Your task to perform on an android device: Go to internet settings Image 0: 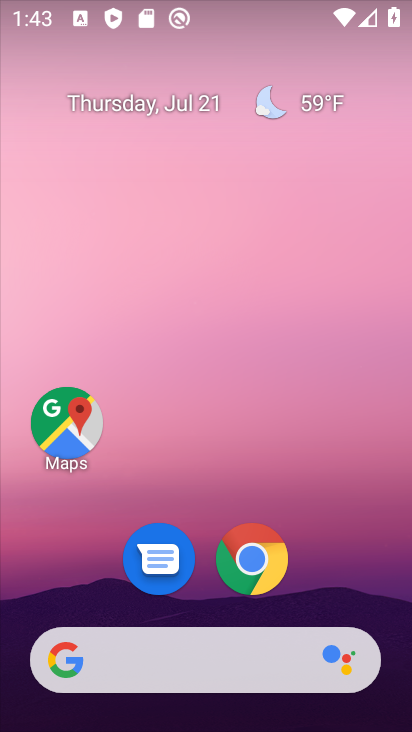
Step 0: click (137, 292)
Your task to perform on an android device: Go to internet settings Image 1: 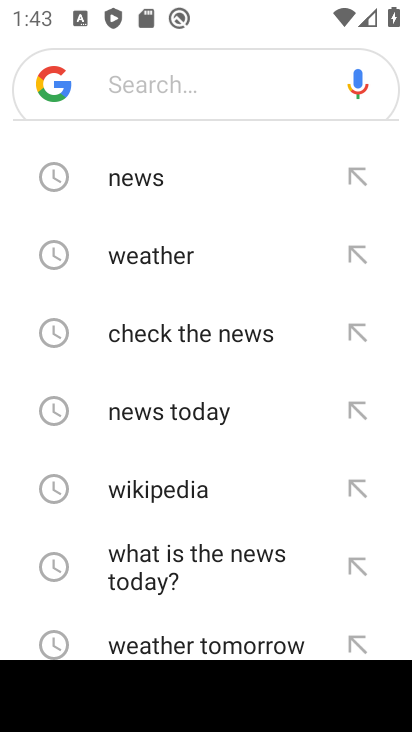
Step 1: press home button
Your task to perform on an android device: Go to internet settings Image 2: 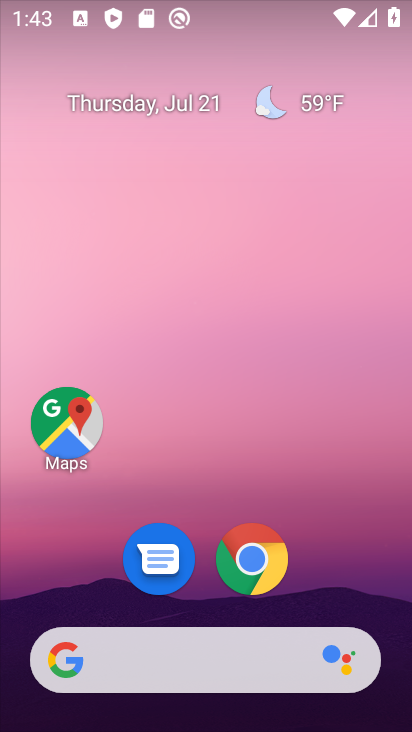
Step 2: drag from (166, 654) to (78, 188)
Your task to perform on an android device: Go to internet settings Image 3: 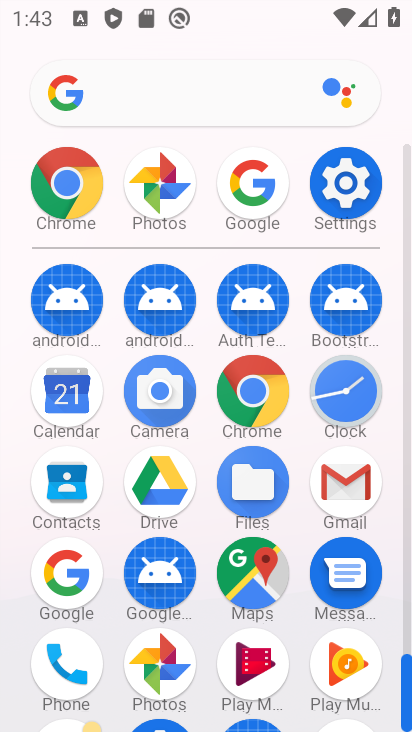
Step 3: click (331, 172)
Your task to perform on an android device: Go to internet settings Image 4: 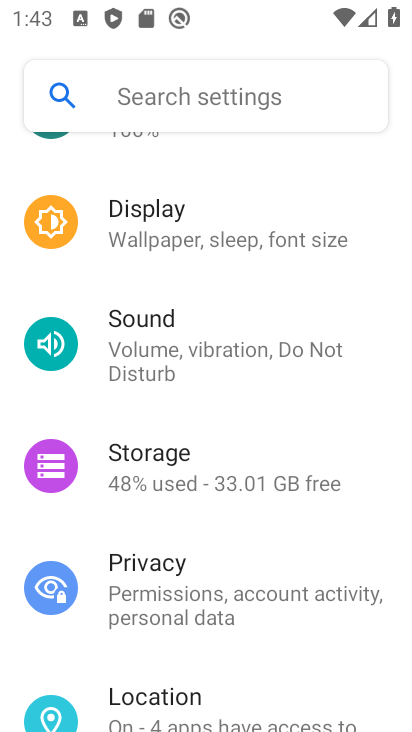
Step 4: drag from (191, 292) to (151, 676)
Your task to perform on an android device: Go to internet settings Image 5: 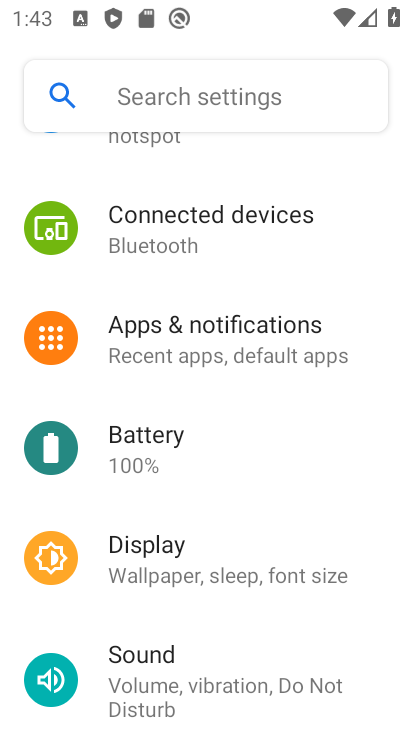
Step 5: drag from (160, 575) to (151, 728)
Your task to perform on an android device: Go to internet settings Image 6: 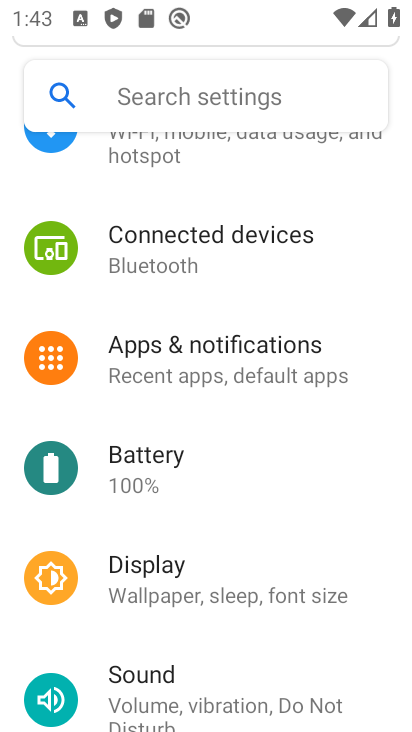
Step 6: drag from (208, 286) to (291, 712)
Your task to perform on an android device: Go to internet settings Image 7: 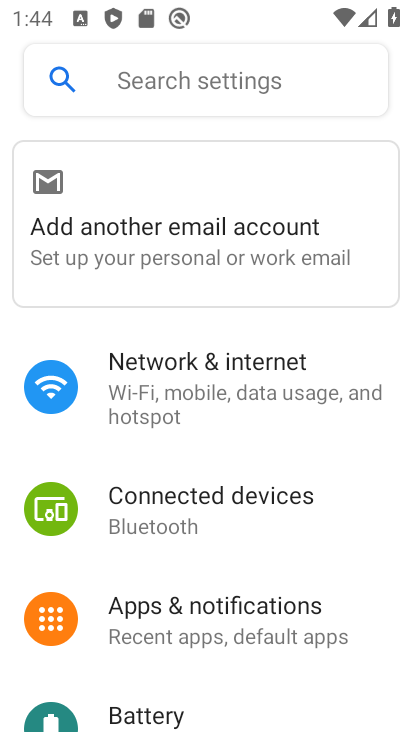
Step 7: click (193, 405)
Your task to perform on an android device: Go to internet settings Image 8: 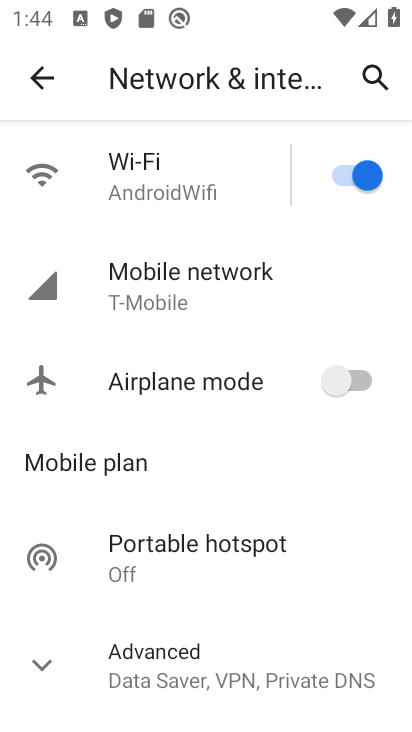
Step 8: click (276, 282)
Your task to perform on an android device: Go to internet settings Image 9: 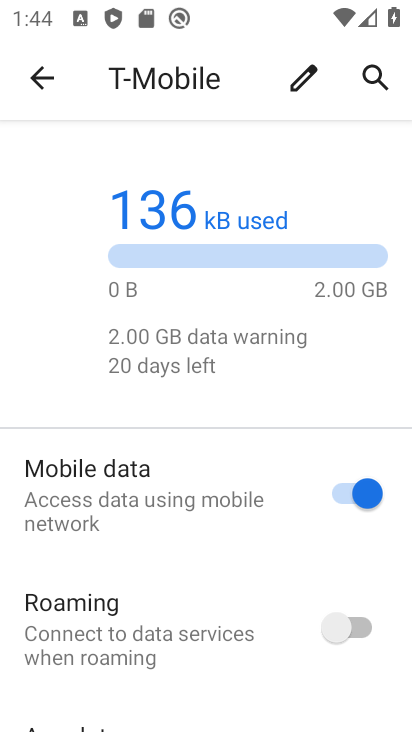
Step 9: drag from (201, 537) to (147, 110)
Your task to perform on an android device: Go to internet settings Image 10: 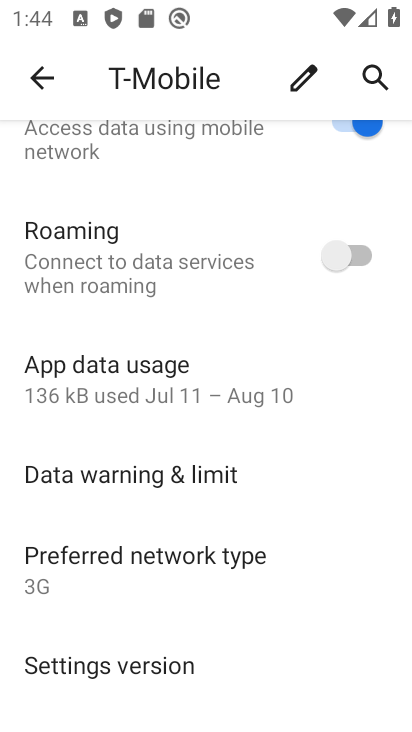
Step 10: click (120, 410)
Your task to perform on an android device: Go to internet settings Image 11: 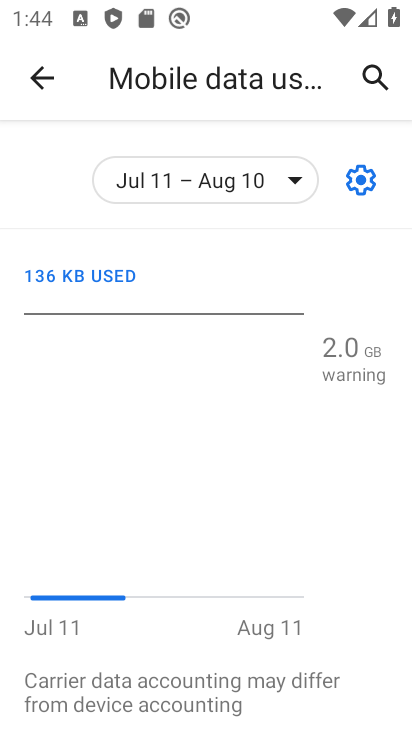
Step 11: task complete